Your task to perform on an android device: Search for "usb-a" on amazon.com, select the first entry, add it to the cart, then select checkout. Image 0: 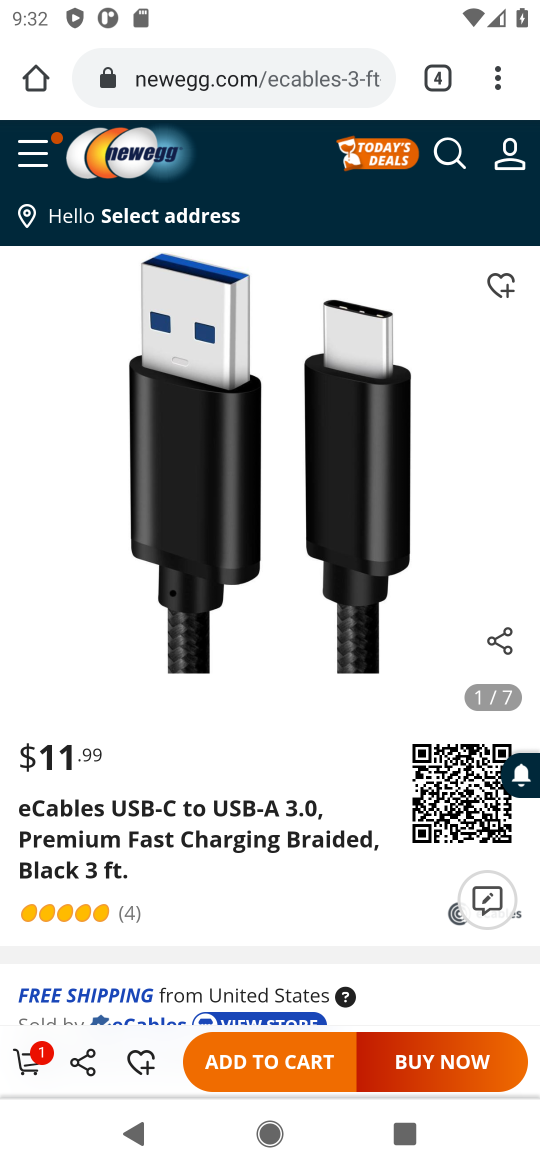
Step 0: click (227, 99)
Your task to perform on an android device: Search for "usb-a" on amazon.com, select the first entry, add it to the cart, then select checkout. Image 1: 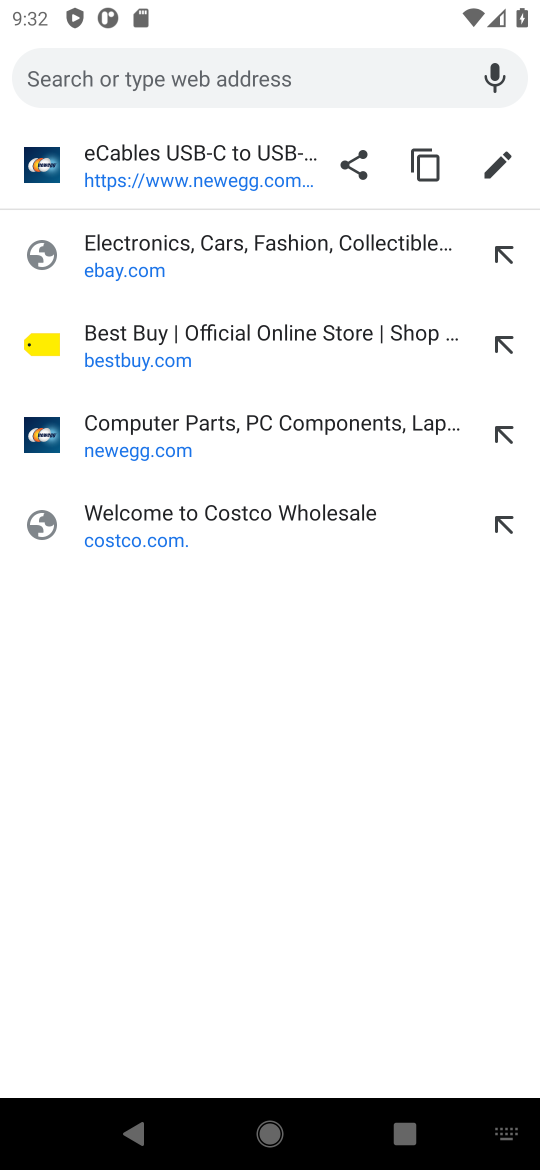
Step 1: type "amazon.com"
Your task to perform on an android device: Search for "usb-a" on amazon.com, select the first entry, add it to the cart, then select checkout. Image 2: 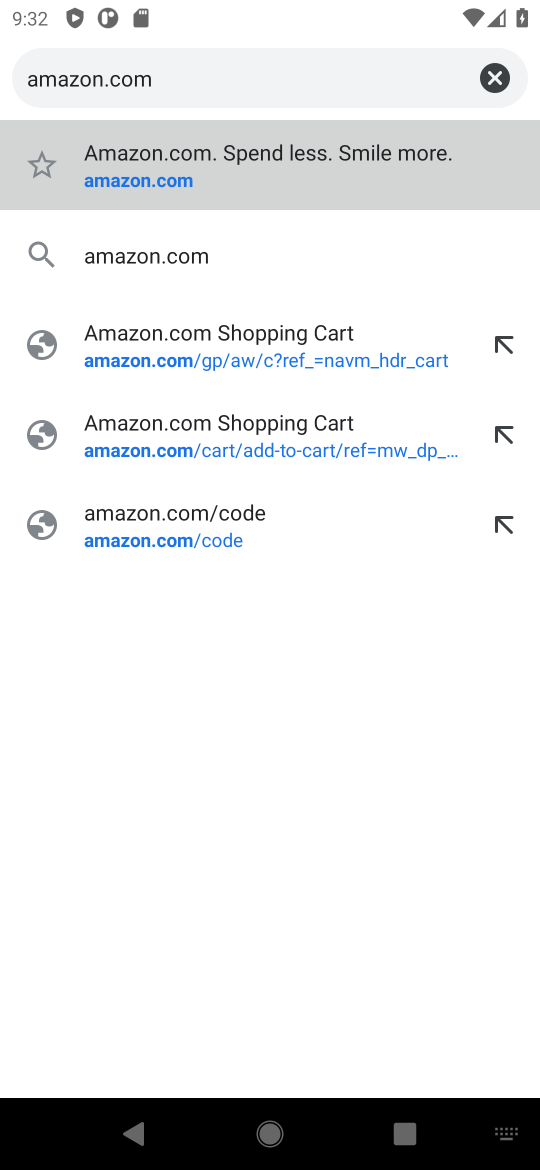
Step 2: click (152, 201)
Your task to perform on an android device: Search for "usb-a" on amazon.com, select the first entry, add it to the cart, then select checkout. Image 3: 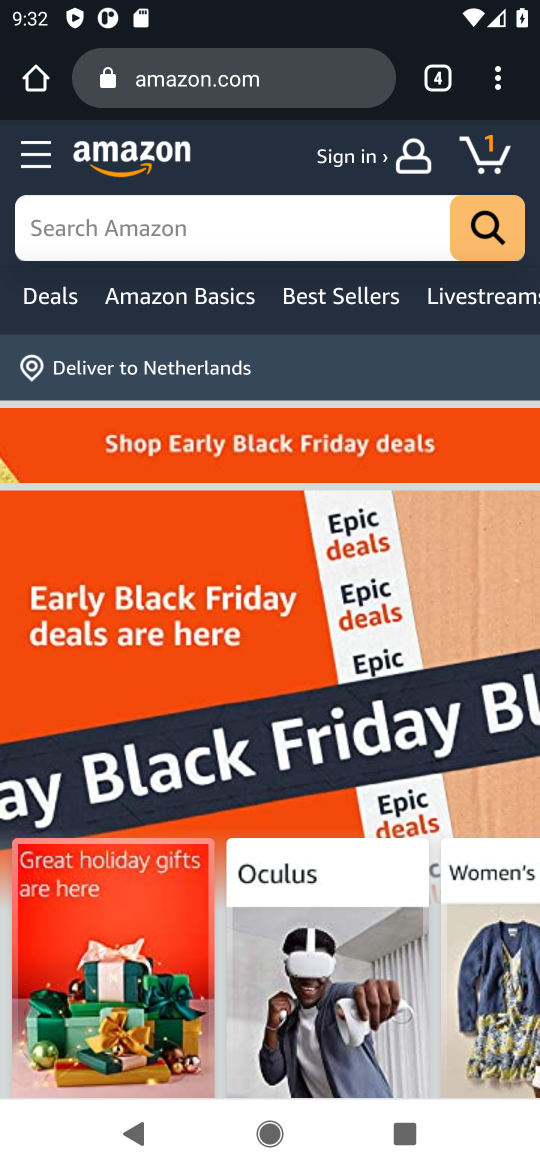
Step 3: click (158, 218)
Your task to perform on an android device: Search for "usb-a" on amazon.com, select the first entry, add it to the cart, then select checkout. Image 4: 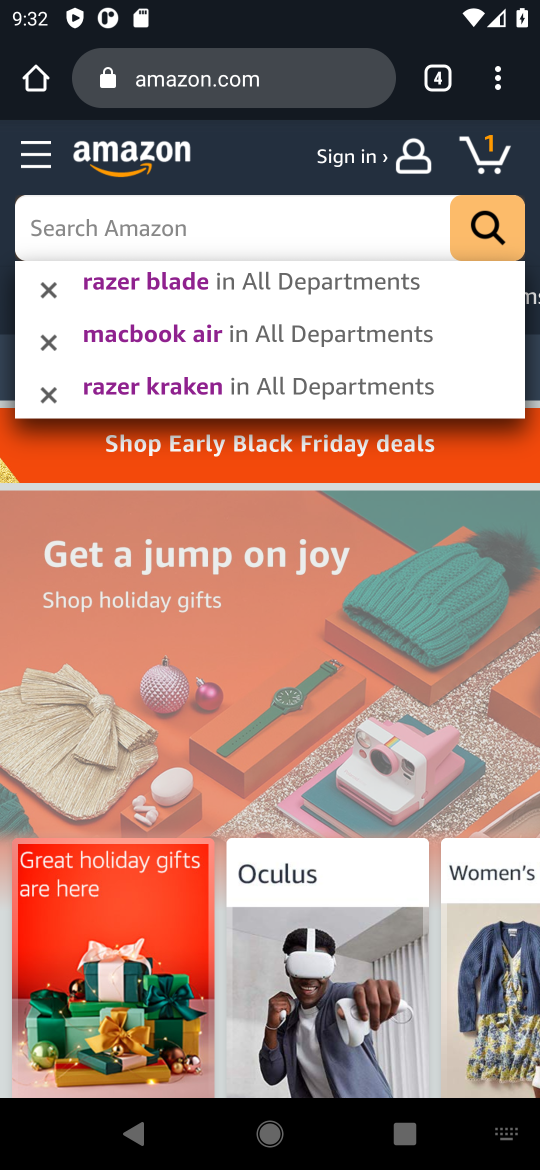
Step 4: type "usb-a"
Your task to perform on an android device: Search for "usb-a" on amazon.com, select the first entry, add it to the cart, then select checkout. Image 5: 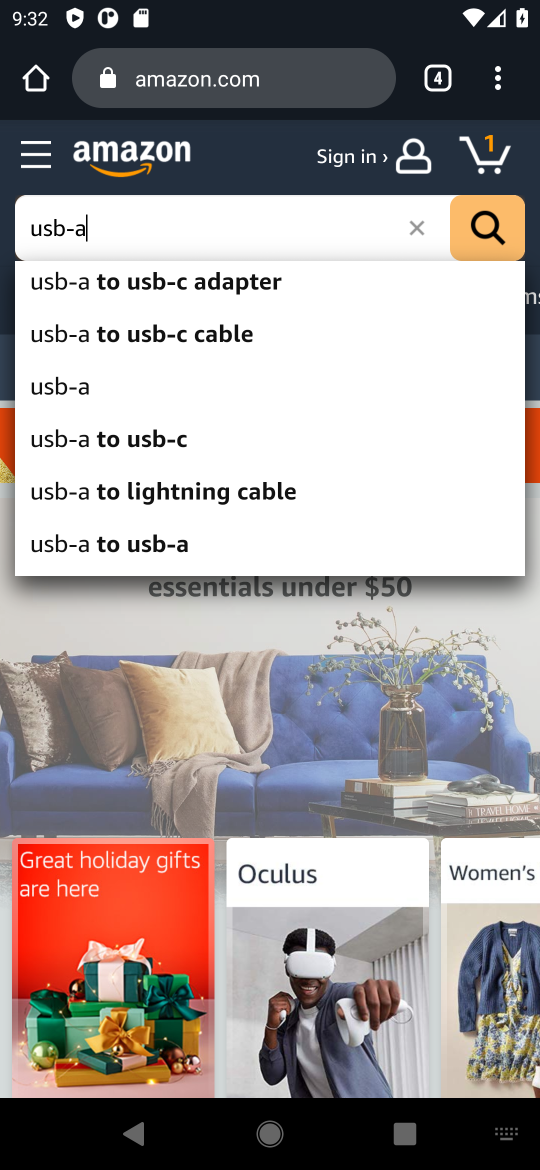
Step 5: click (55, 403)
Your task to perform on an android device: Search for "usb-a" on amazon.com, select the first entry, add it to the cart, then select checkout. Image 6: 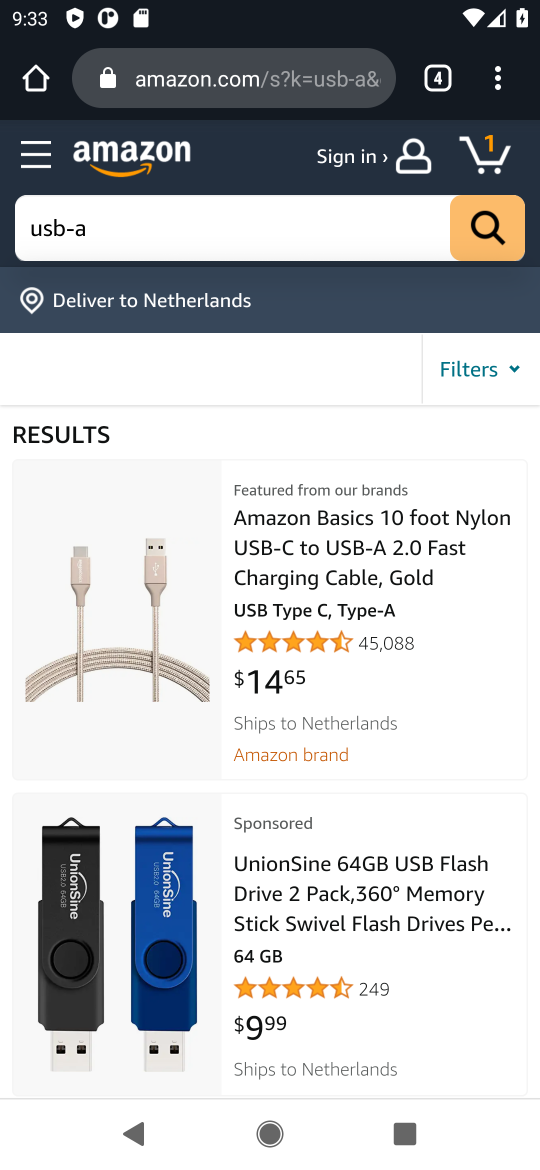
Step 6: click (111, 582)
Your task to perform on an android device: Search for "usb-a" on amazon.com, select the first entry, add it to the cart, then select checkout. Image 7: 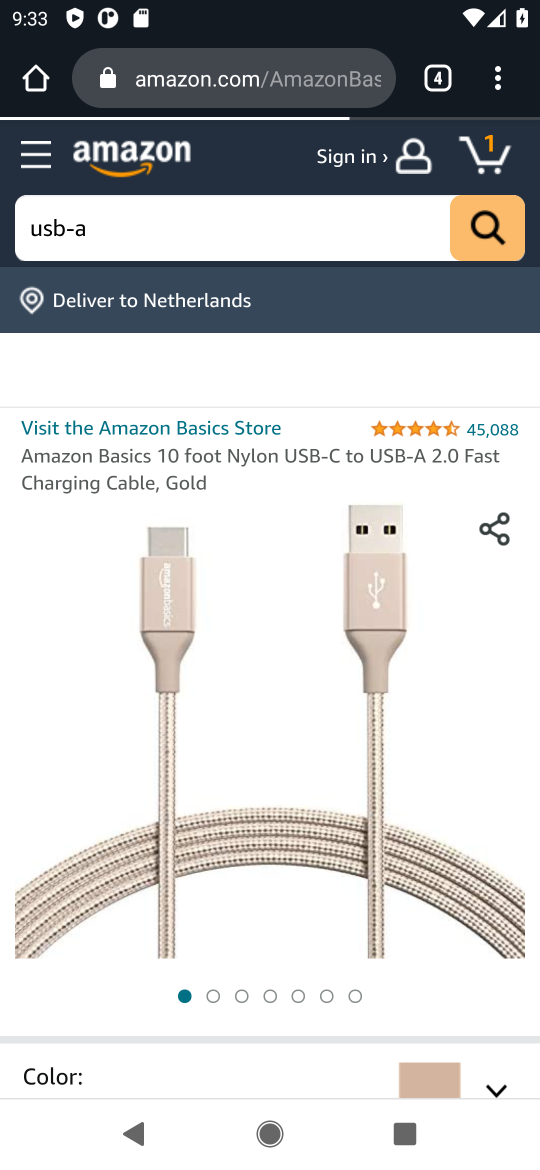
Step 7: drag from (254, 883) to (265, 352)
Your task to perform on an android device: Search for "usb-a" on amazon.com, select the first entry, add it to the cart, then select checkout. Image 8: 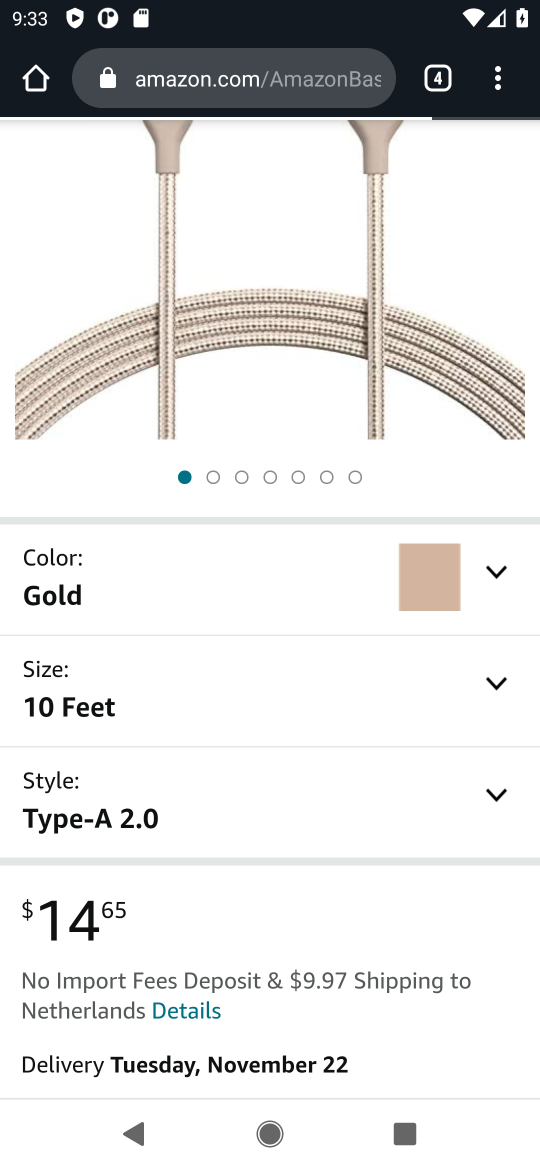
Step 8: drag from (214, 878) to (193, 282)
Your task to perform on an android device: Search for "usb-a" on amazon.com, select the first entry, add it to the cart, then select checkout. Image 9: 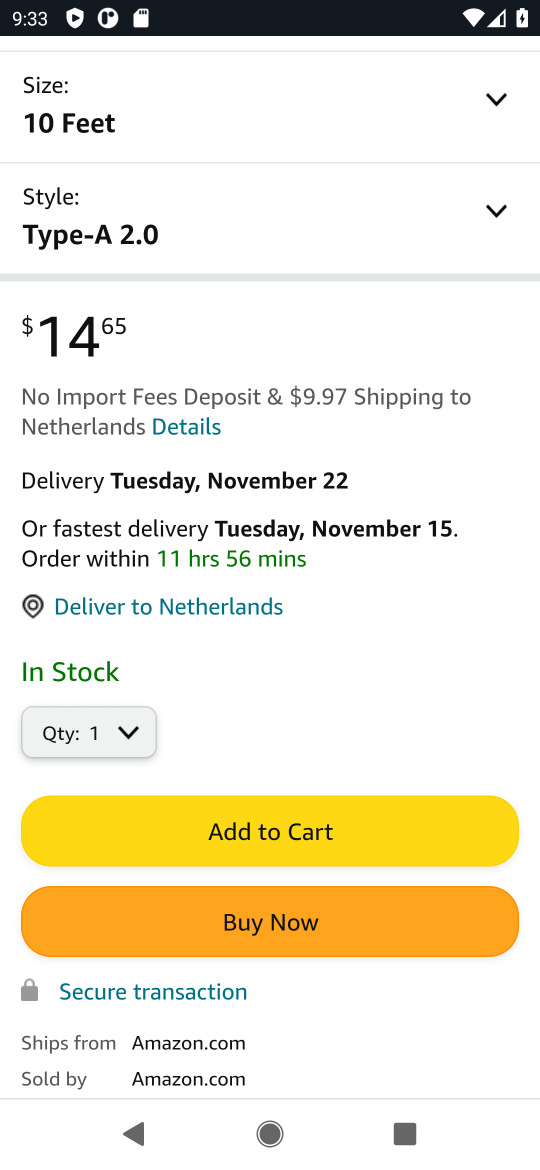
Step 9: click (180, 829)
Your task to perform on an android device: Search for "usb-a" on amazon.com, select the first entry, add it to the cart, then select checkout. Image 10: 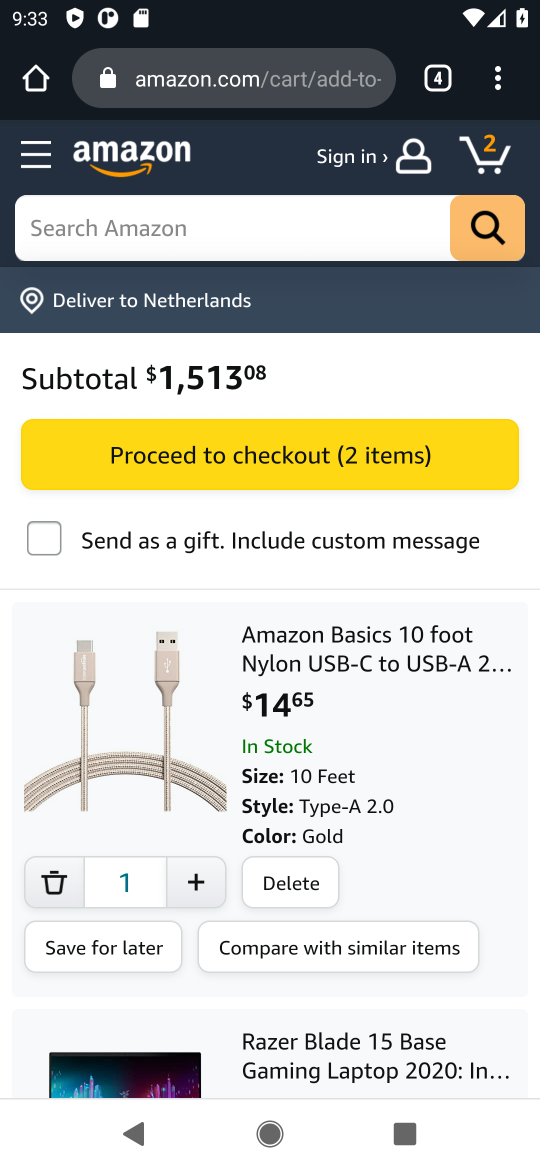
Step 10: click (241, 464)
Your task to perform on an android device: Search for "usb-a" on amazon.com, select the first entry, add it to the cart, then select checkout. Image 11: 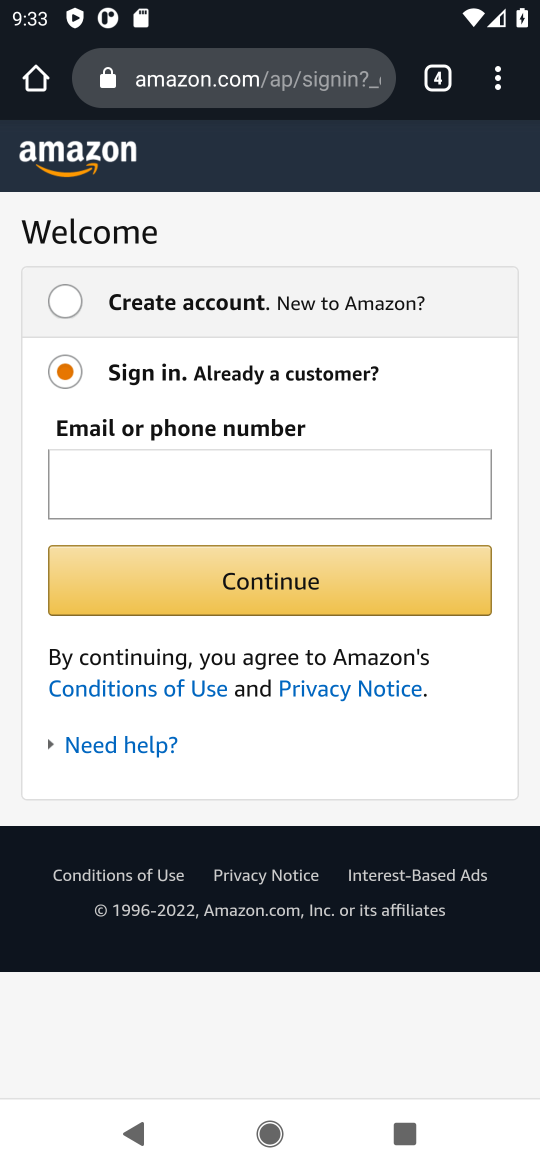
Step 11: task complete